Your task to perform on an android device: toggle data saver in the chrome app Image 0: 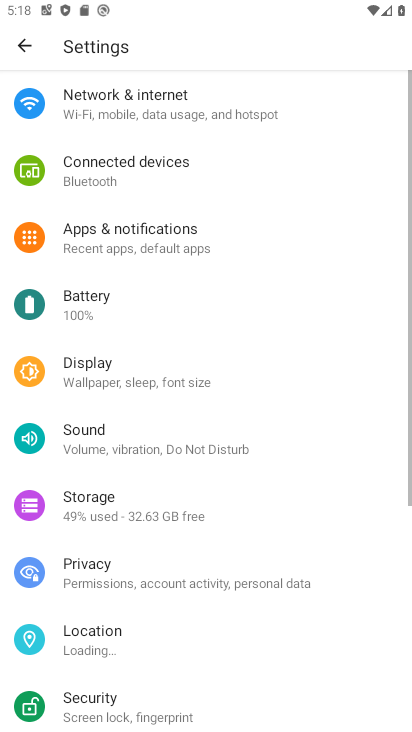
Step 0: drag from (206, 12) to (317, 652)
Your task to perform on an android device: toggle data saver in the chrome app Image 1: 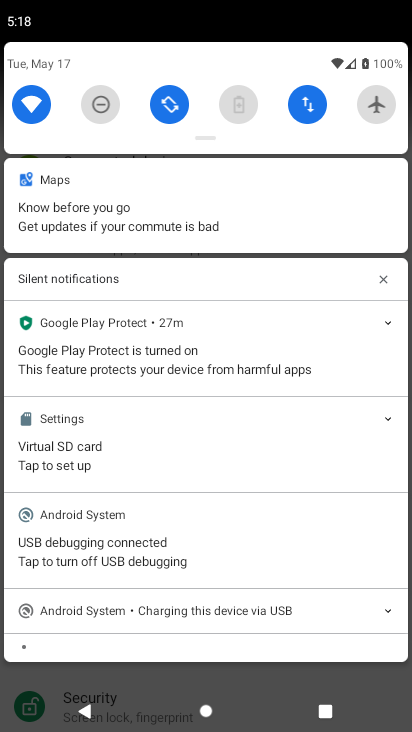
Step 1: drag from (266, 702) to (306, 187)
Your task to perform on an android device: toggle data saver in the chrome app Image 2: 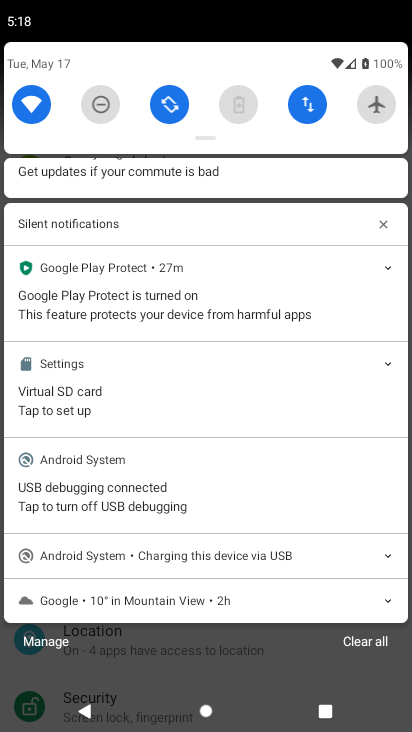
Step 2: press home button
Your task to perform on an android device: toggle data saver in the chrome app Image 3: 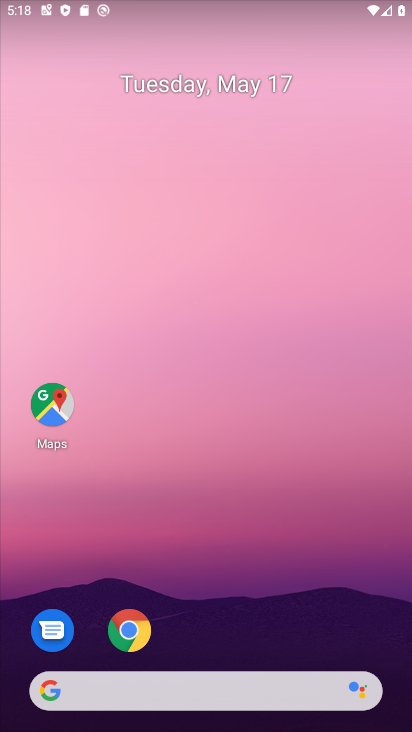
Step 3: click (139, 625)
Your task to perform on an android device: toggle data saver in the chrome app Image 4: 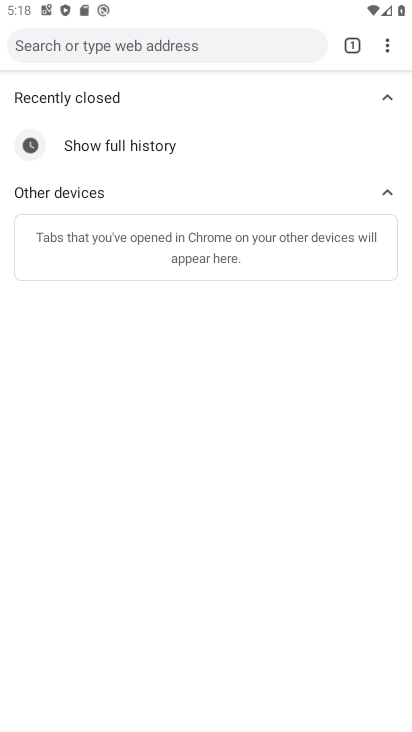
Step 4: drag from (383, 39) to (254, 377)
Your task to perform on an android device: toggle data saver in the chrome app Image 5: 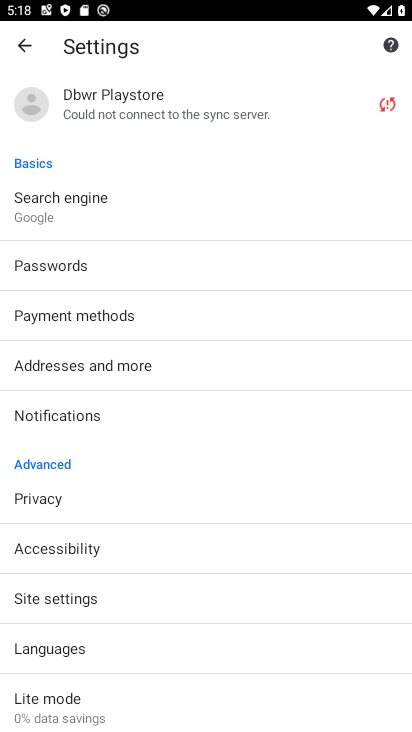
Step 5: drag from (118, 730) to (191, 397)
Your task to perform on an android device: toggle data saver in the chrome app Image 6: 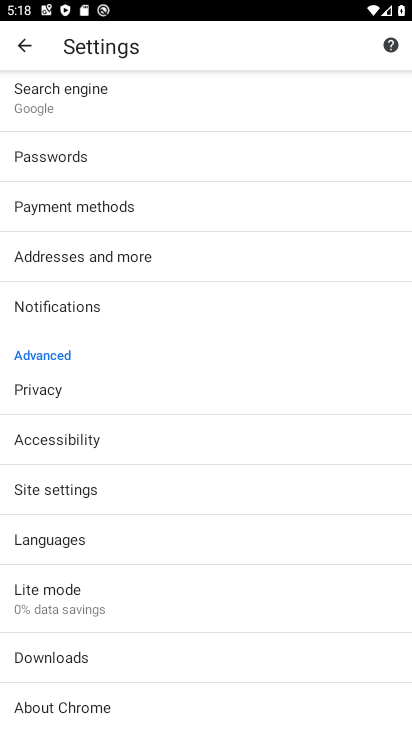
Step 6: click (104, 583)
Your task to perform on an android device: toggle data saver in the chrome app Image 7: 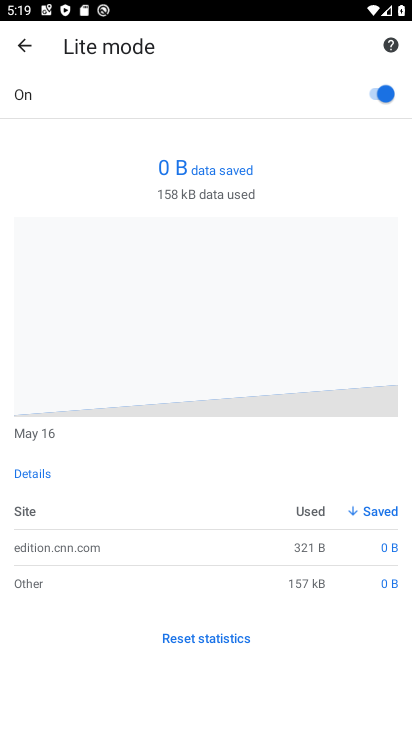
Step 7: click (379, 92)
Your task to perform on an android device: toggle data saver in the chrome app Image 8: 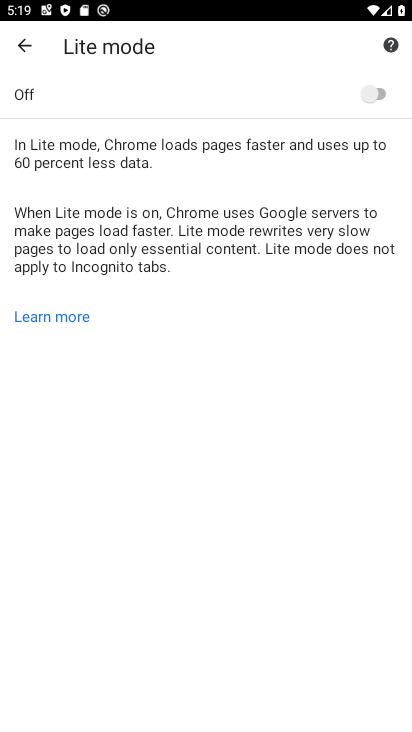
Step 8: task complete